Your task to perform on an android device: turn on the 12-hour format for clock Image 0: 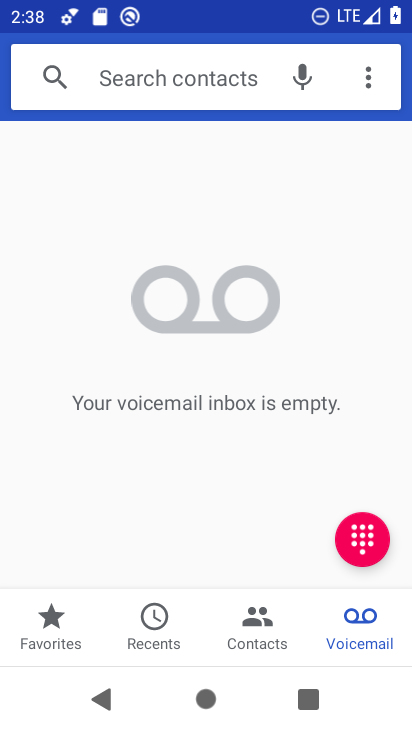
Step 0: press home button
Your task to perform on an android device: turn on the 12-hour format for clock Image 1: 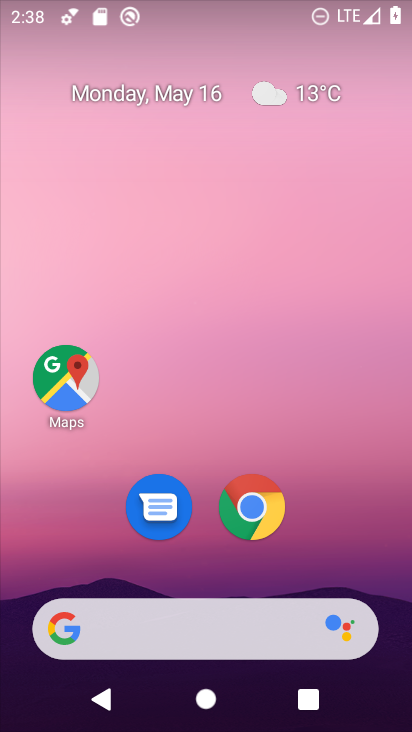
Step 1: drag from (332, 548) to (272, 57)
Your task to perform on an android device: turn on the 12-hour format for clock Image 2: 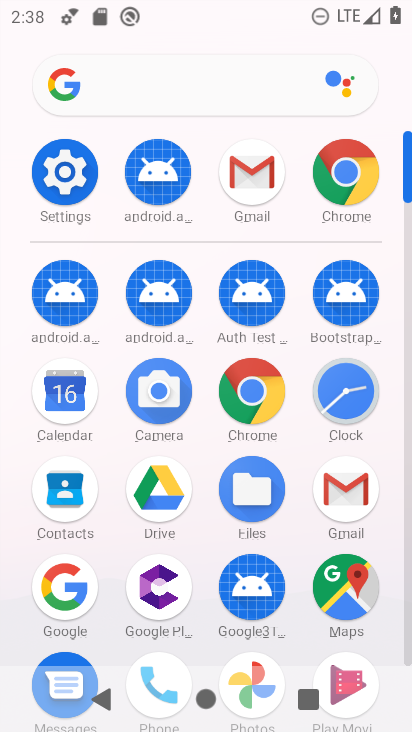
Step 2: click (358, 378)
Your task to perform on an android device: turn on the 12-hour format for clock Image 3: 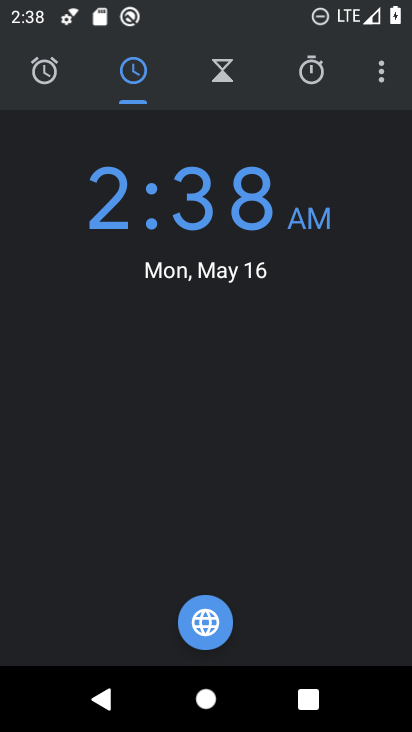
Step 3: click (386, 76)
Your task to perform on an android device: turn on the 12-hour format for clock Image 4: 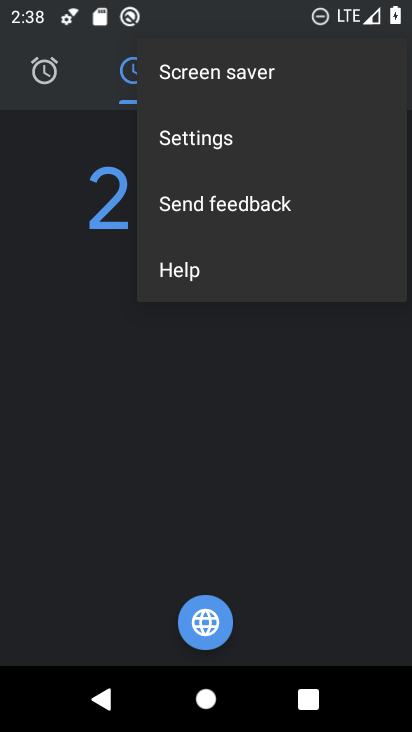
Step 4: click (246, 143)
Your task to perform on an android device: turn on the 12-hour format for clock Image 5: 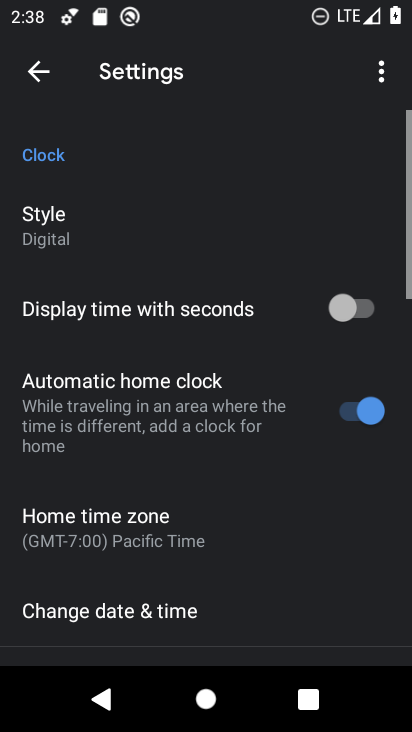
Step 5: click (178, 605)
Your task to perform on an android device: turn on the 12-hour format for clock Image 6: 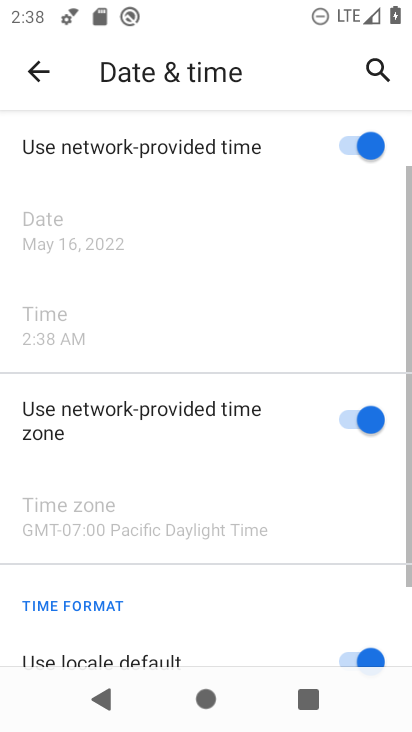
Step 6: drag from (257, 606) to (257, 146)
Your task to perform on an android device: turn on the 12-hour format for clock Image 7: 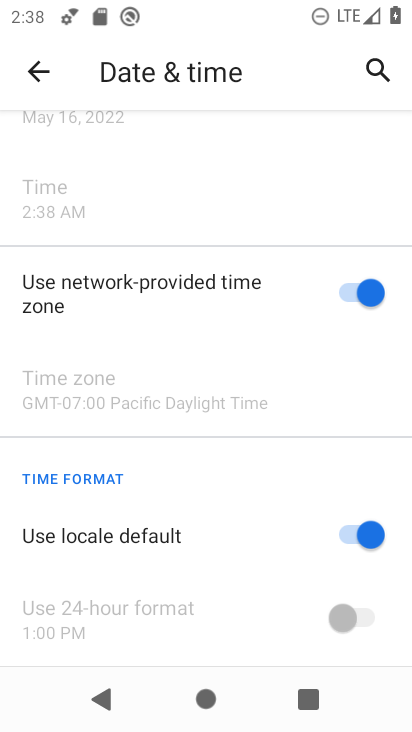
Step 7: click (353, 532)
Your task to perform on an android device: turn on the 12-hour format for clock Image 8: 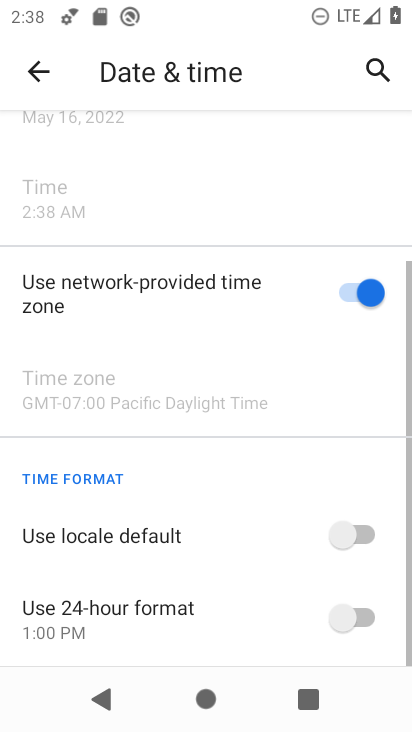
Step 8: click (344, 617)
Your task to perform on an android device: turn on the 12-hour format for clock Image 9: 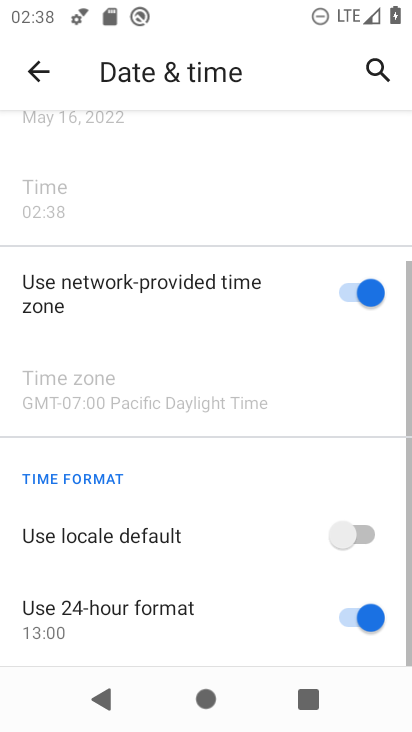
Step 9: task complete